Your task to perform on an android device: open a bookmark in the chrome app Image 0: 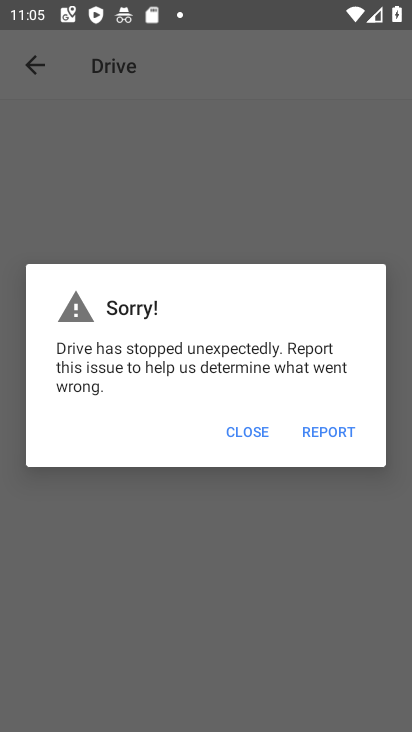
Step 0: press home button
Your task to perform on an android device: open a bookmark in the chrome app Image 1: 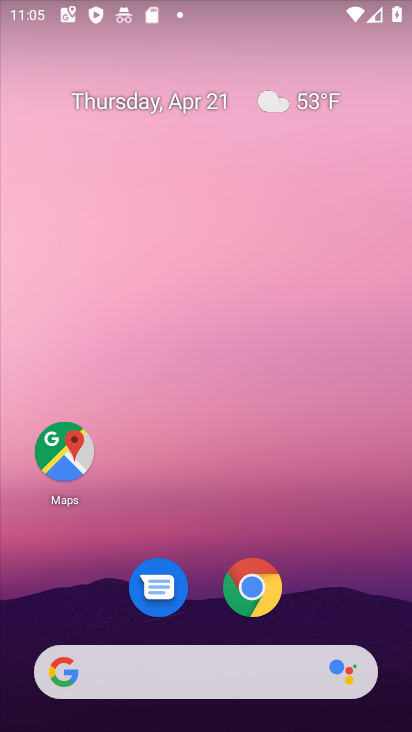
Step 1: click (255, 590)
Your task to perform on an android device: open a bookmark in the chrome app Image 2: 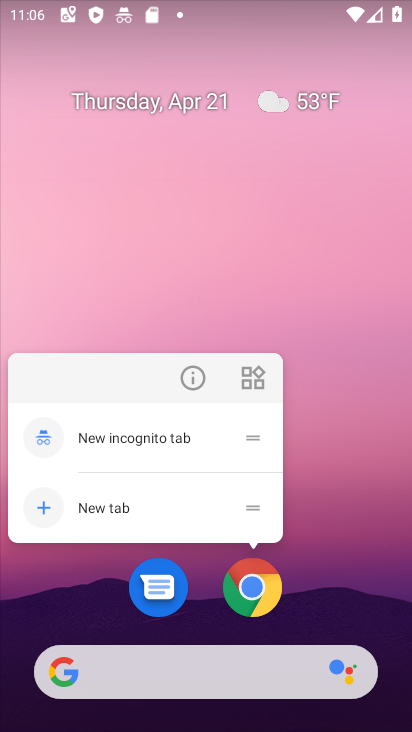
Step 2: click (276, 588)
Your task to perform on an android device: open a bookmark in the chrome app Image 3: 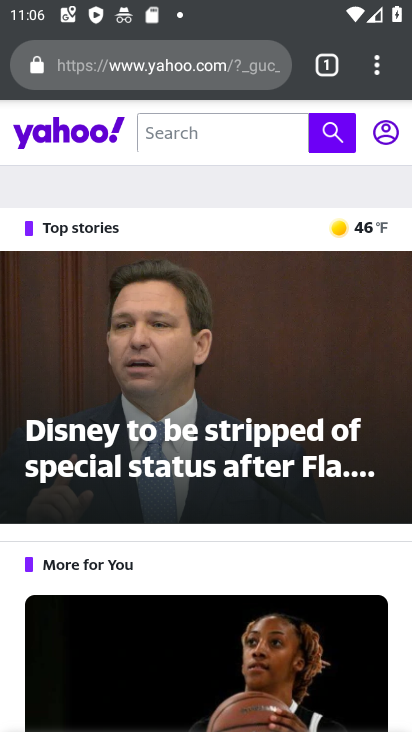
Step 3: task complete